Your task to perform on an android device: Open my contact list Image 0: 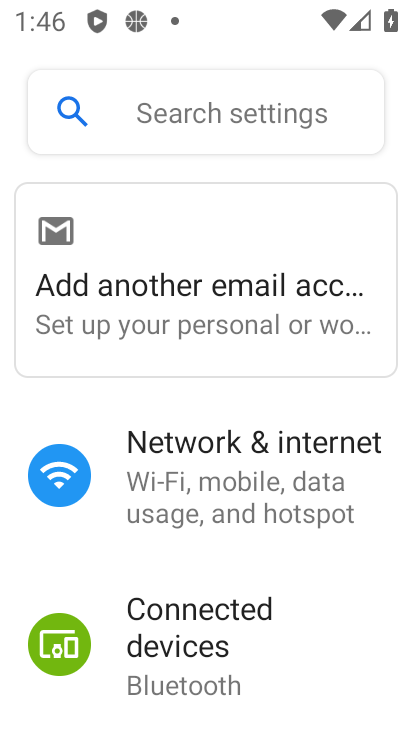
Step 0: press home button
Your task to perform on an android device: Open my contact list Image 1: 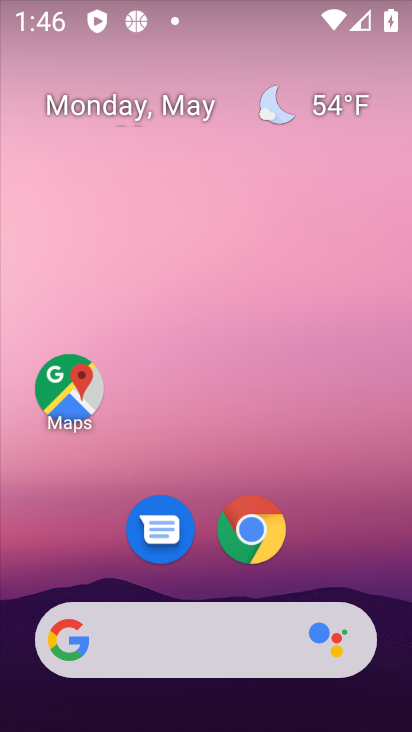
Step 1: drag from (78, 596) to (184, 116)
Your task to perform on an android device: Open my contact list Image 2: 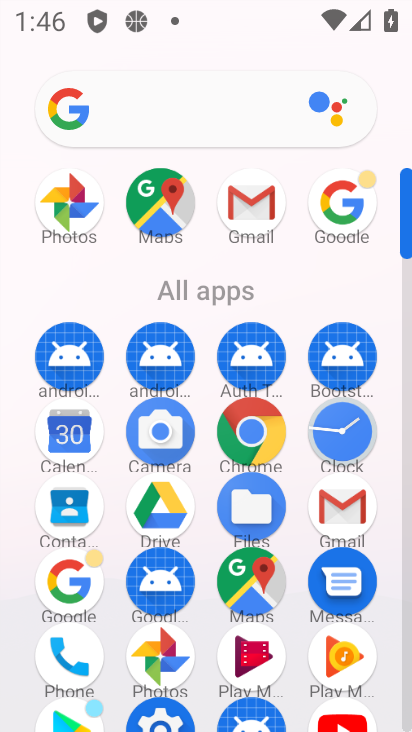
Step 2: click (77, 511)
Your task to perform on an android device: Open my contact list Image 3: 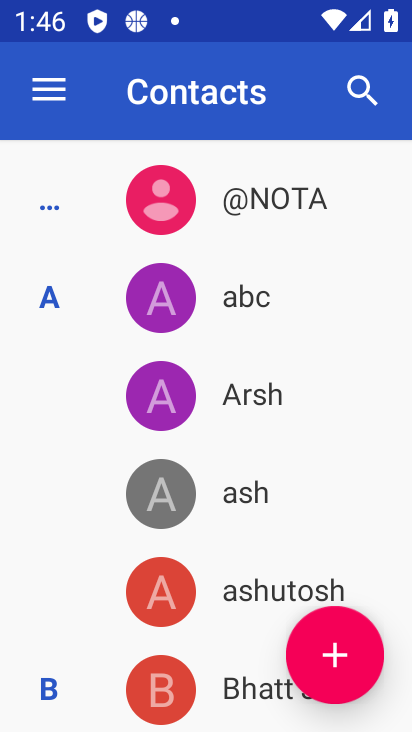
Step 3: task complete